Your task to perform on an android device: Open calendar and show me the third week of next month Image 0: 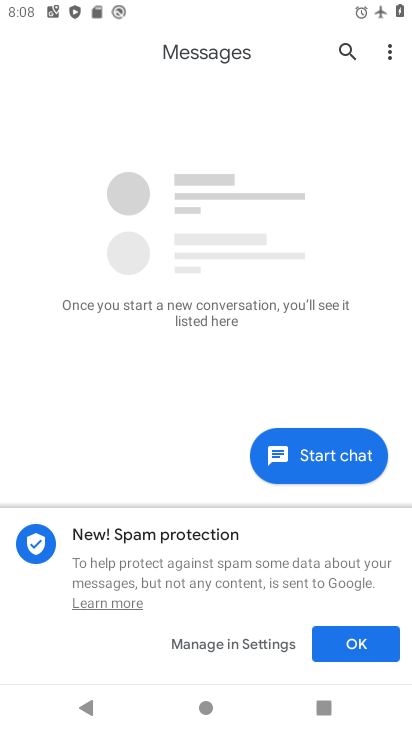
Step 0: press home button
Your task to perform on an android device: Open calendar and show me the third week of next month Image 1: 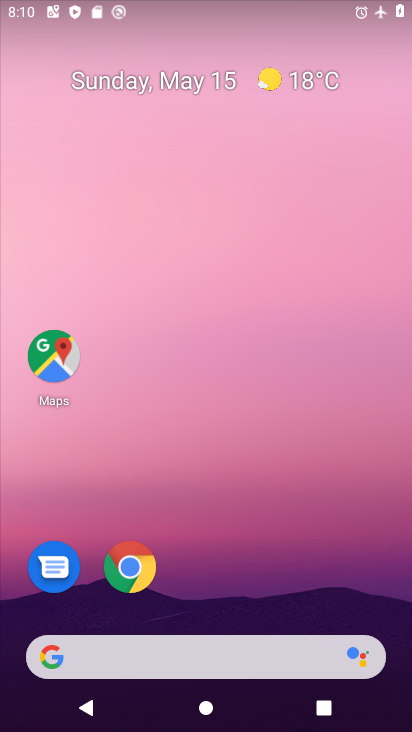
Step 1: drag from (122, 678) to (133, 55)
Your task to perform on an android device: Open calendar and show me the third week of next month Image 2: 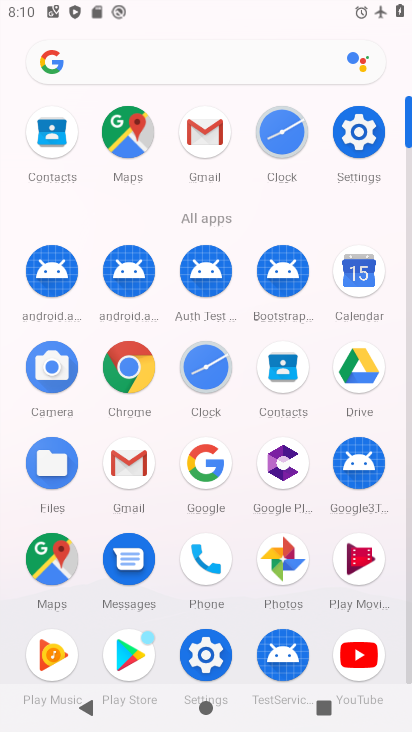
Step 2: click (372, 277)
Your task to perform on an android device: Open calendar and show me the third week of next month Image 3: 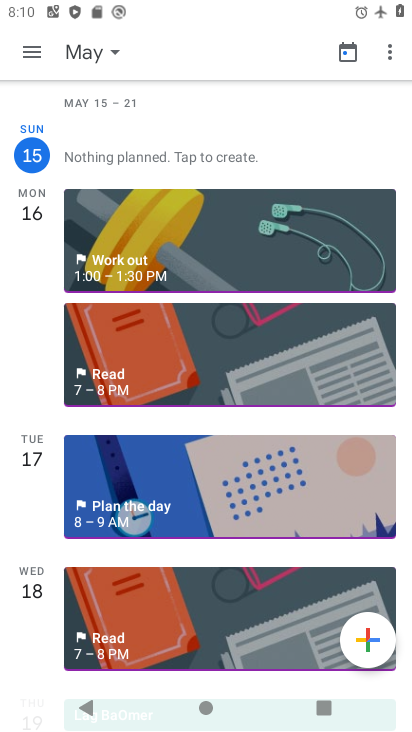
Step 3: click (80, 56)
Your task to perform on an android device: Open calendar and show me the third week of next month Image 4: 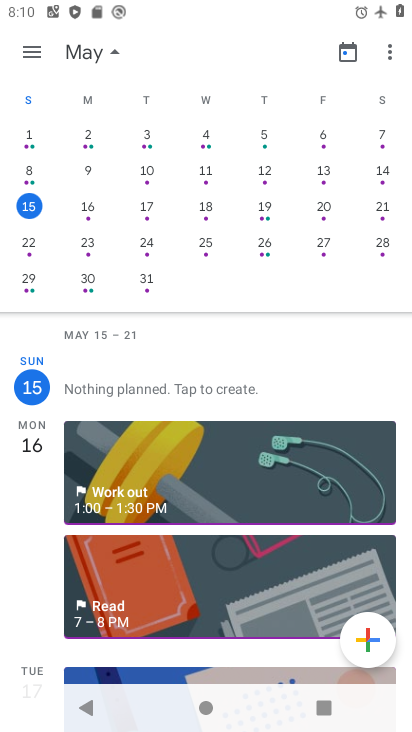
Step 4: drag from (349, 194) to (64, 171)
Your task to perform on an android device: Open calendar and show me the third week of next month Image 5: 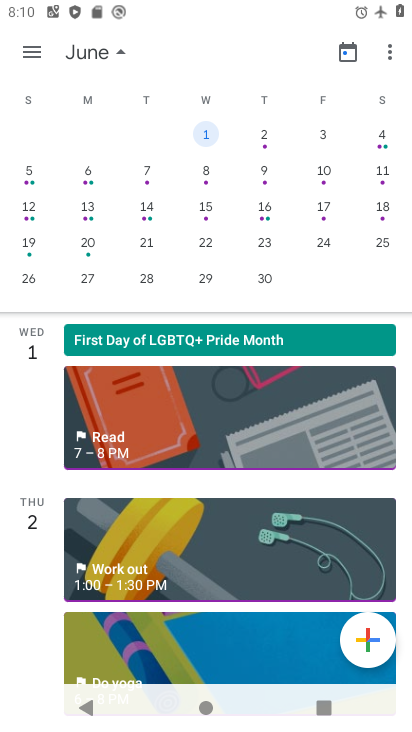
Step 5: click (25, 201)
Your task to perform on an android device: Open calendar and show me the third week of next month Image 6: 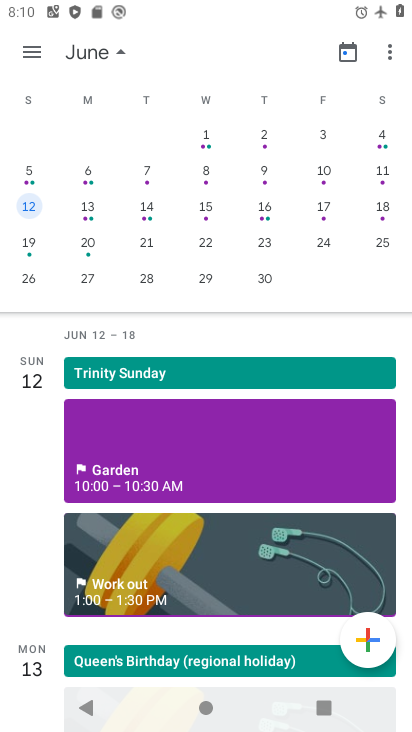
Step 6: task complete